Your task to perform on an android device: change the clock style Image 0: 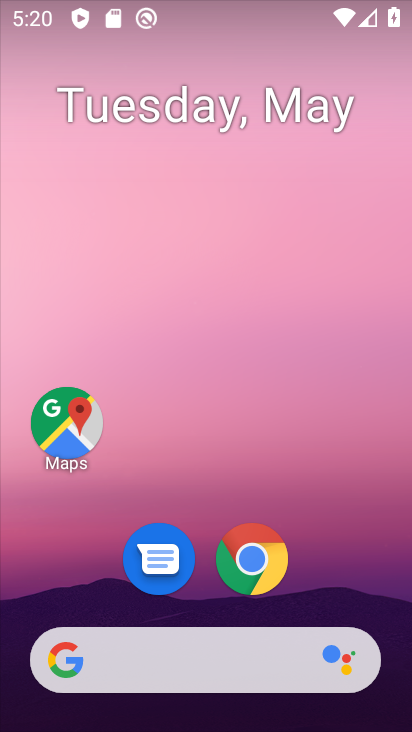
Step 0: drag from (204, 606) to (227, 251)
Your task to perform on an android device: change the clock style Image 1: 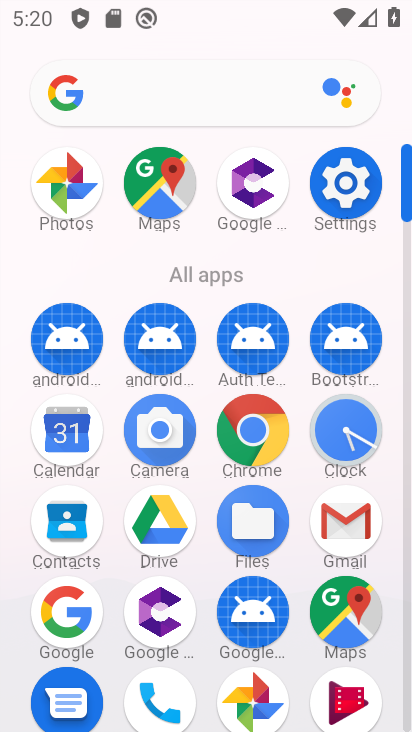
Step 1: click (341, 437)
Your task to perform on an android device: change the clock style Image 2: 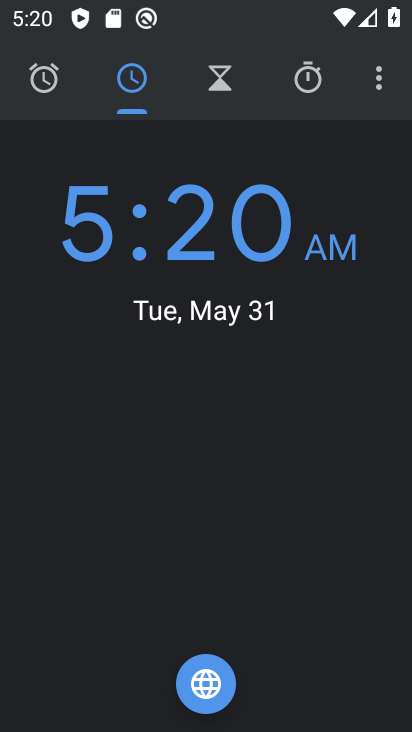
Step 2: click (368, 85)
Your task to perform on an android device: change the clock style Image 3: 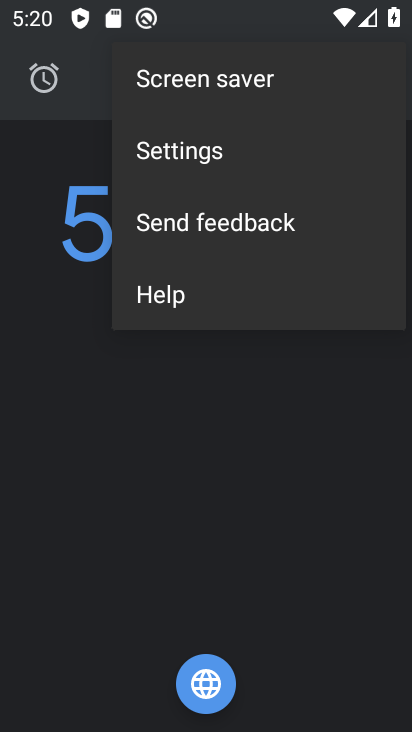
Step 3: click (203, 158)
Your task to perform on an android device: change the clock style Image 4: 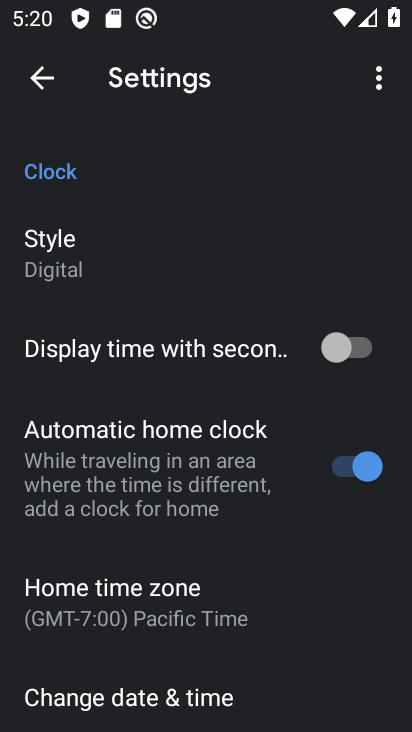
Step 4: drag from (110, 645) to (108, 353)
Your task to perform on an android device: change the clock style Image 5: 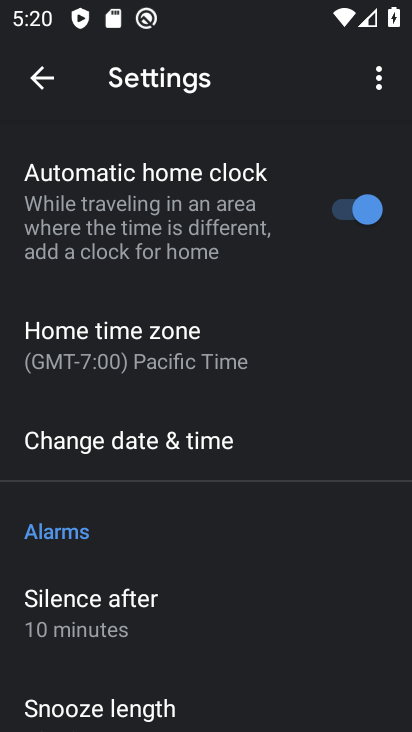
Step 5: drag from (111, 272) to (111, 456)
Your task to perform on an android device: change the clock style Image 6: 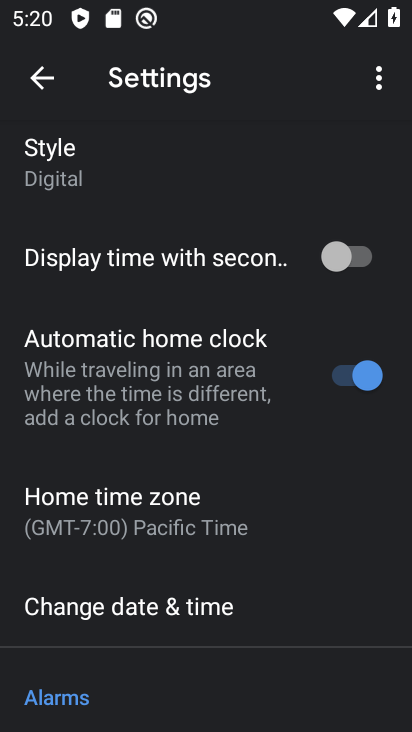
Step 6: click (56, 178)
Your task to perform on an android device: change the clock style Image 7: 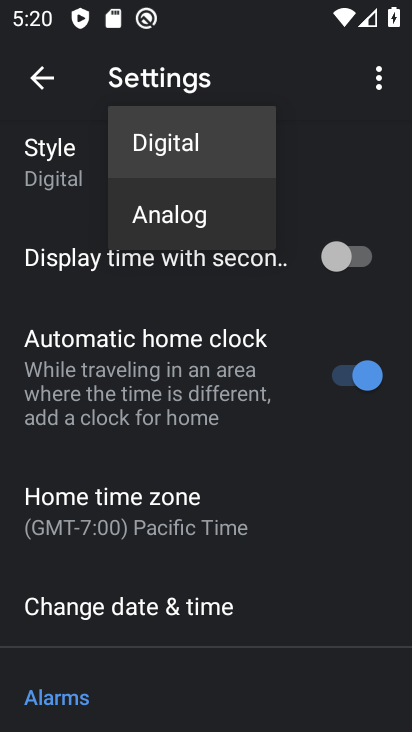
Step 7: click (143, 220)
Your task to perform on an android device: change the clock style Image 8: 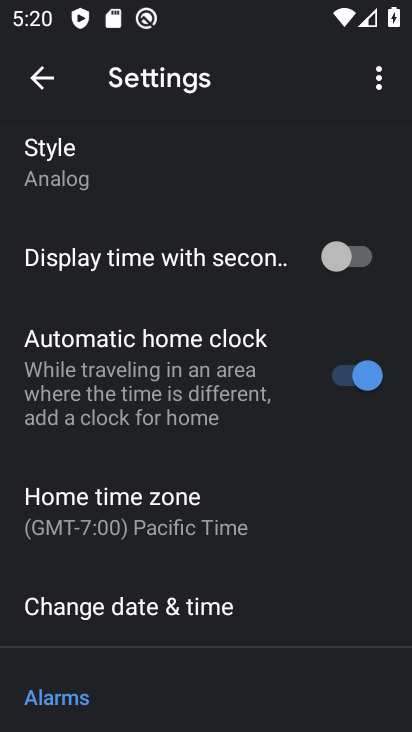
Step 8: task complete